Your task to perform on an android device: Clear all items from cart on costco. Search for sony triple a on costco, select the first entry, add it to the cart, then select checkout. Image 0: 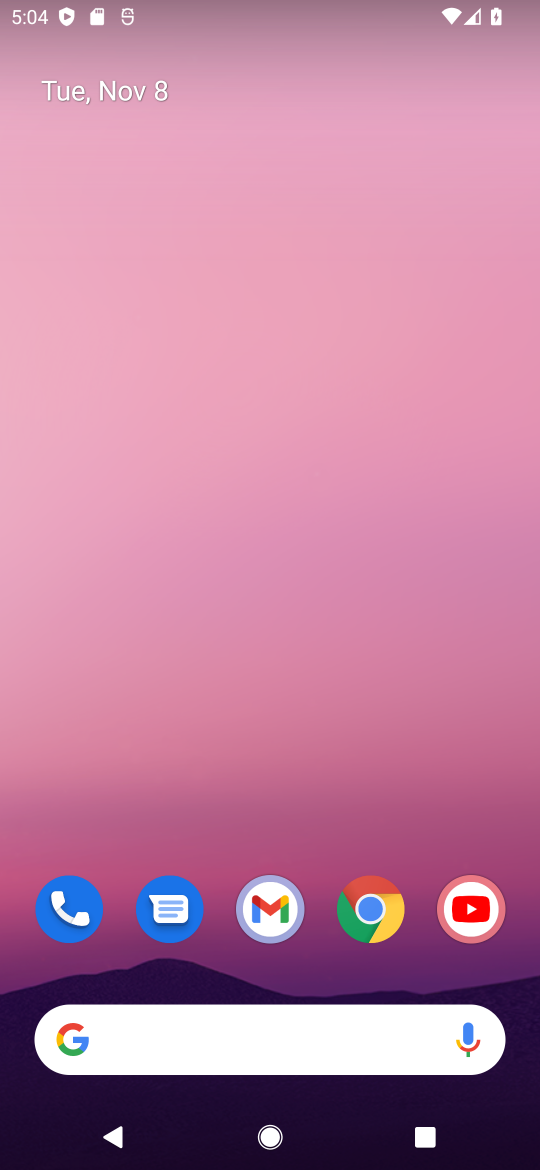
Step 0: click (373, 907)
Your task to perform on an android device: Clear all items from cart on costco. Search for sony triple a on costco, select the first entry, add it to the cart, then select checkout. Image 1: 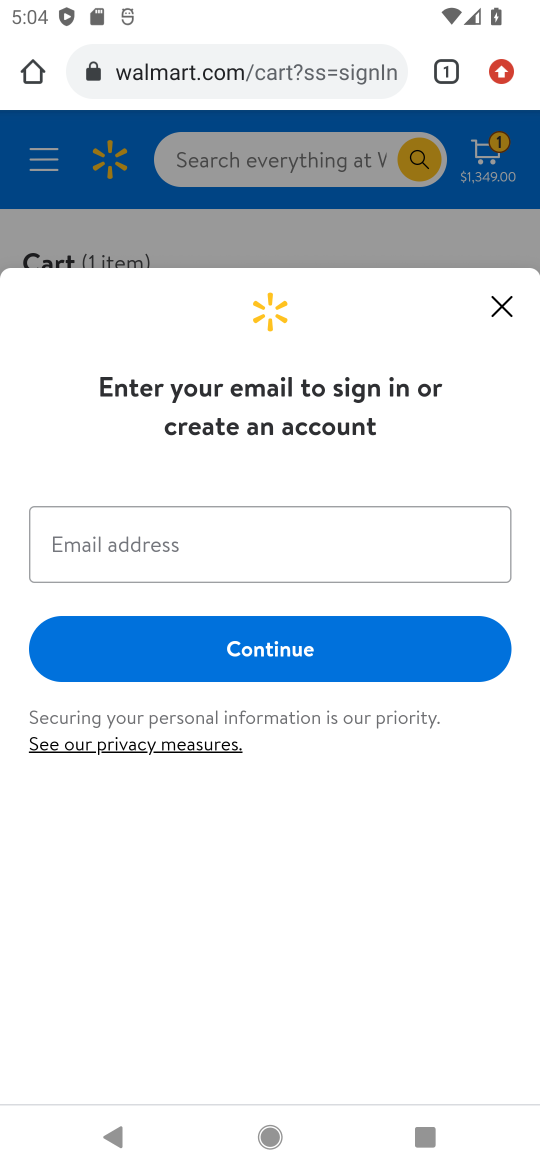
Step 1: click (284, 76)
Your task to perform on an android device: Clear all items from cart on costco. Search for sony triple a on costco, select the first entry, add it to the cart, then select checkout. Image 2: 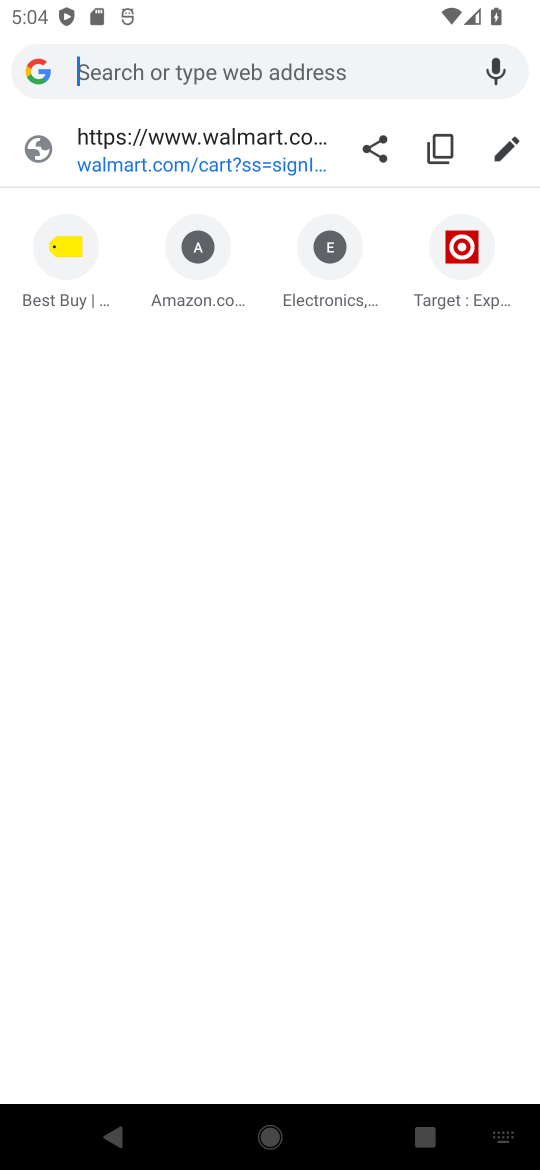
Step 2: click (287, 69)
Your task to perform on an android device: Clear all items from cart on costco. Search for sony triple a on costco, select the first entry, add it to the cart, then select checkout. Image 3: 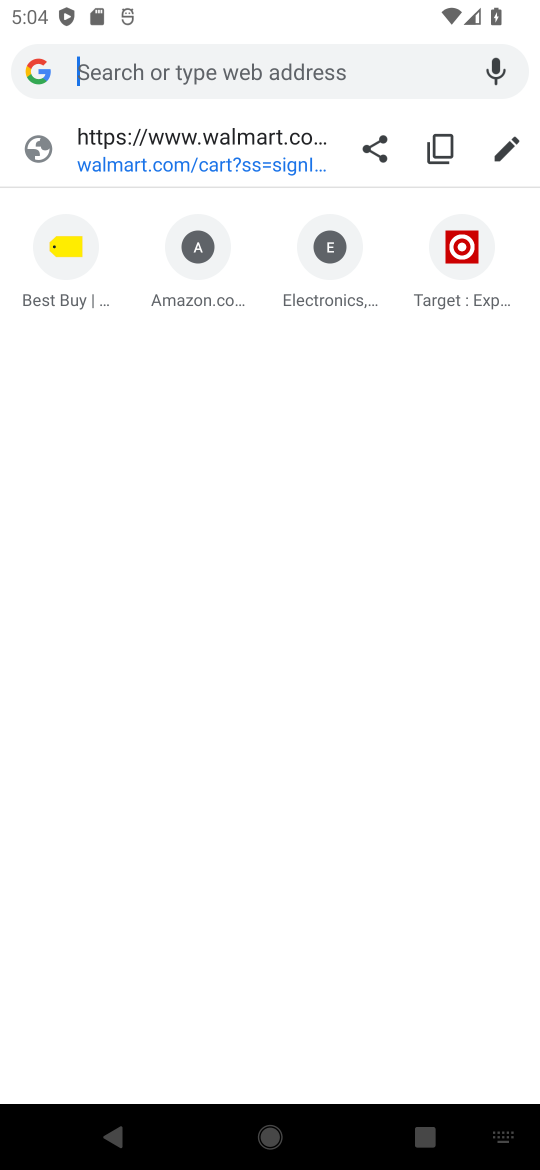
Step 3: type "costco"
Your task to perform on an android device: Clear all items from cart on costco. Search for sony triple a on costco, select the first entry, add it to the cart, then select checkout. Image 4: 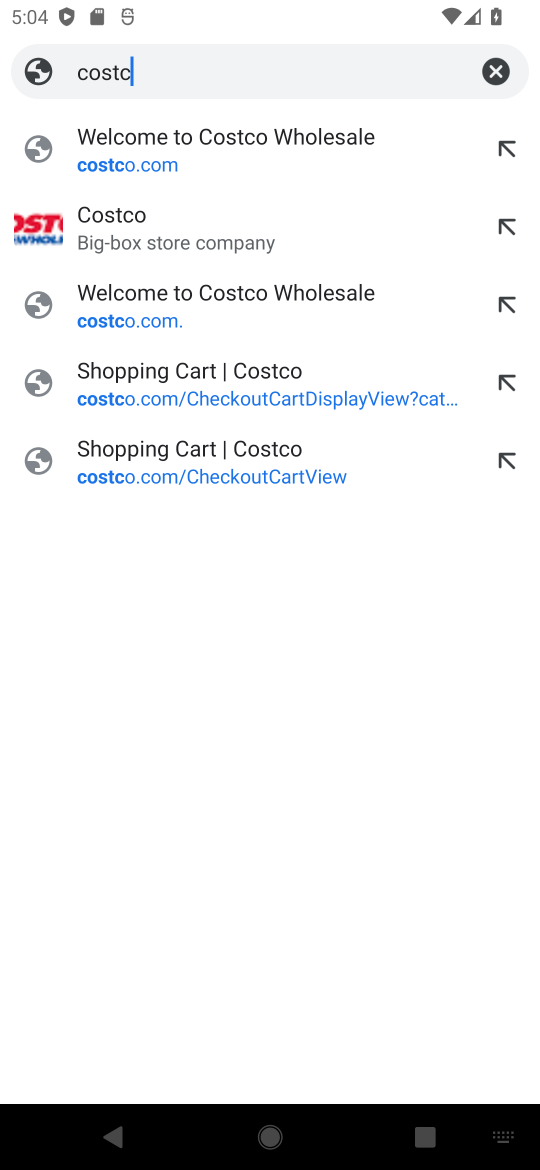
Step 4: press enter
Your task to perform on an android device: Clear all items from cart on costco. Search for sony triple a on costco, select the first entry, add it to the cart, then select checkout. Image 5: 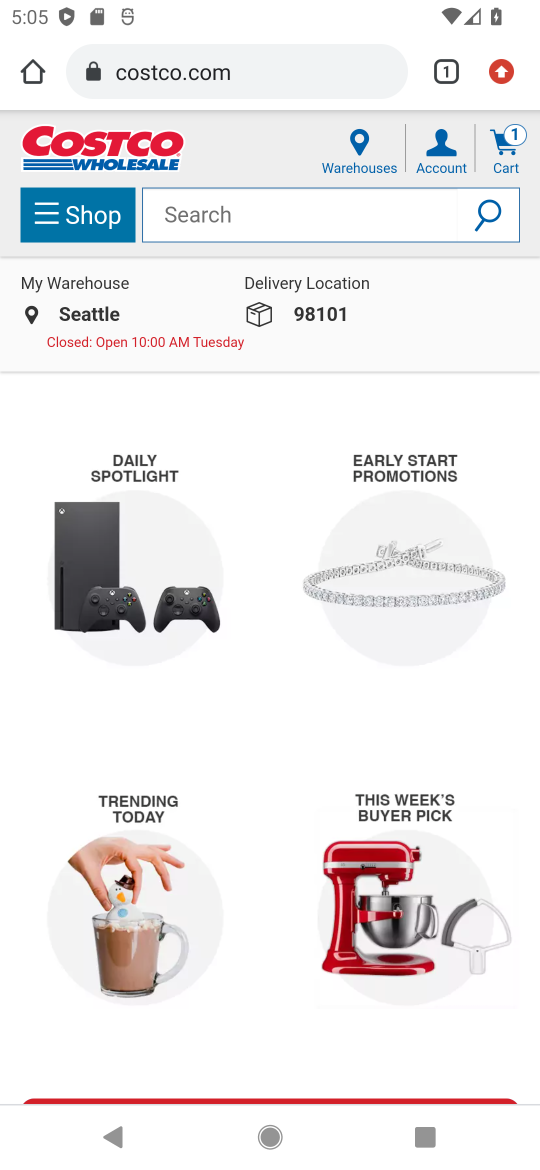
Step 5: click (251, 207)
Your task to perform on an android device: Clear all items from cart on costco. Search for sony triple a on costco, select the first entry, add it to the cart, then select checkout. Image 6: 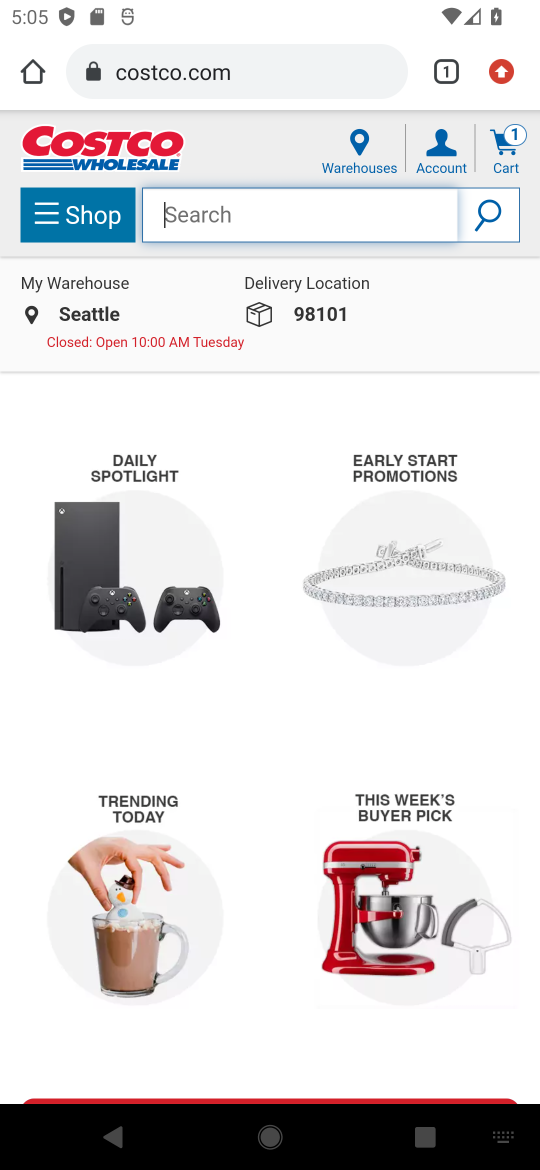
Step 6: type "sony triple a"
Your task to perform on an android device: Clear all items from cart on costco. Search for sony triple a on costco, select the first entry, add it to the cart, then select checkout. Image 7: 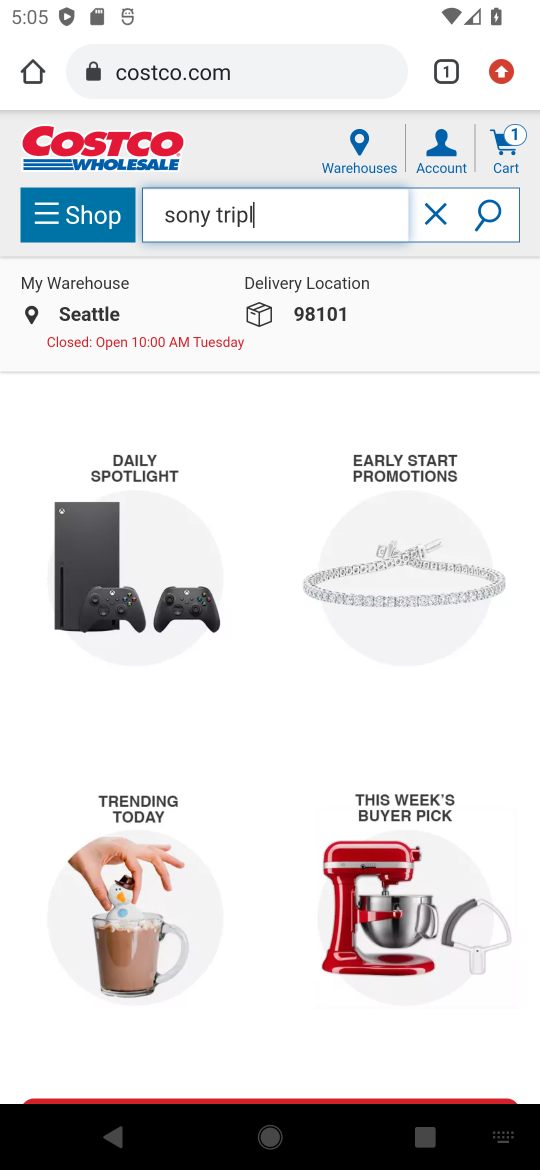
Step 7: press enter
Your task to perform on an android device: Clear all items from cart on costco. Search for sony triple a on costco, select the first entry, add it to the cart, then select checkout. Image 8: 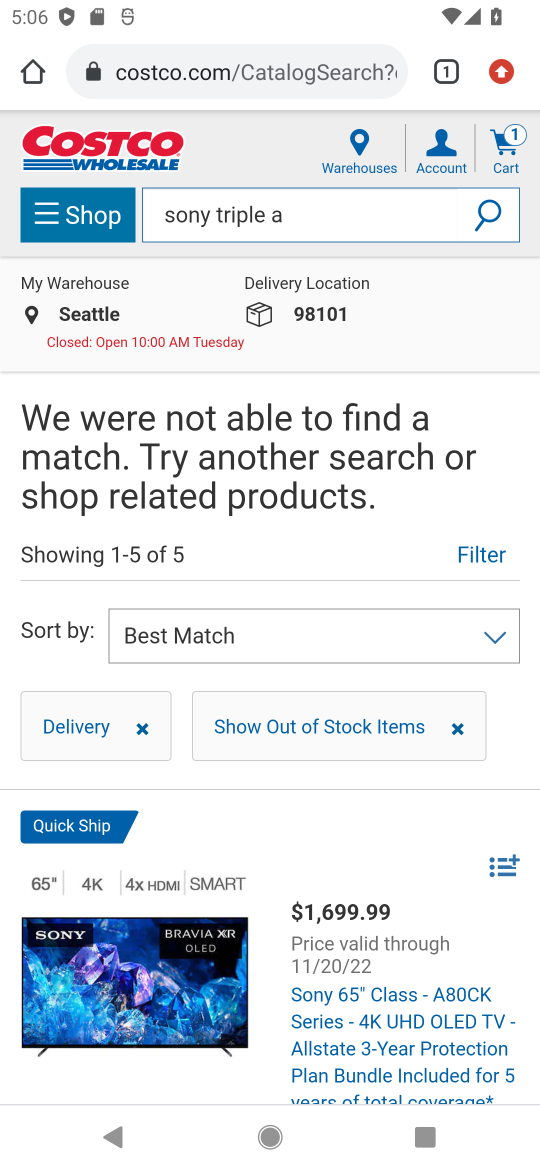
Step 8: task complete